Your task to perform on an android device: Open CNN.com Image 0: 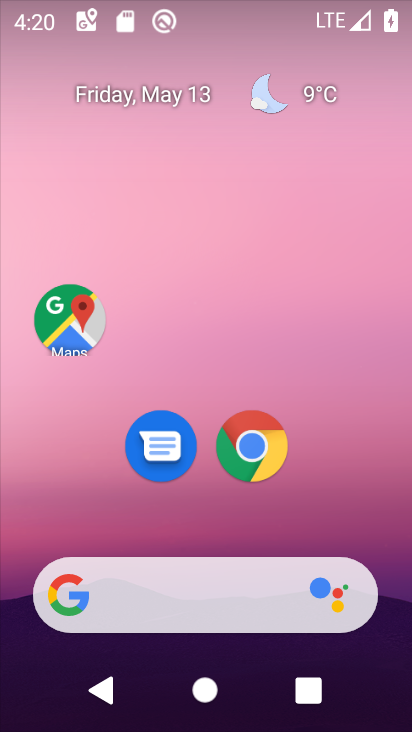
Step 0: click (254, 444)
Your task to perform on an android device: Open CNN.com Image 1: 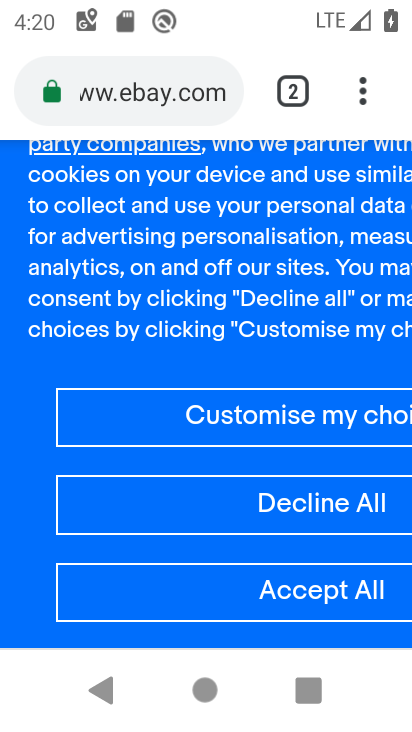
Step 1: click (158, 98)
Your task to perform on an android device: Open CNN.com Image 2: 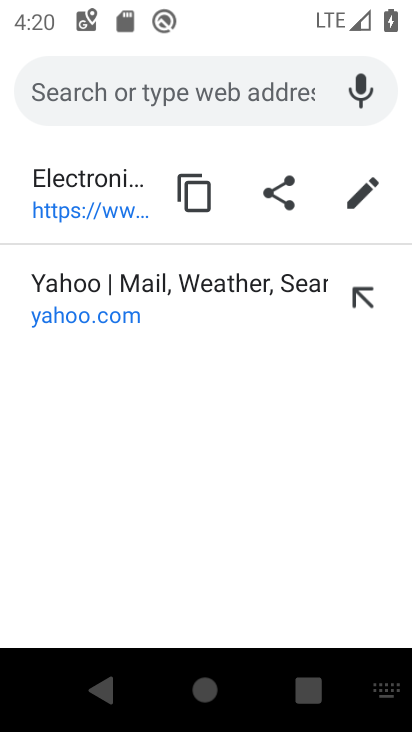
Step 2: type "CNN.com"
Your task to perform on an android device: Open CNN.com Image 3: 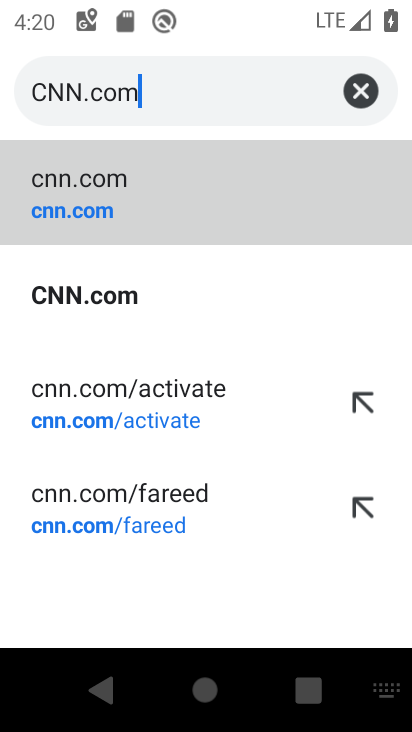
Step 3: click (142, 172)
Your task to perform on an android device: Open CNN.com Image 4: 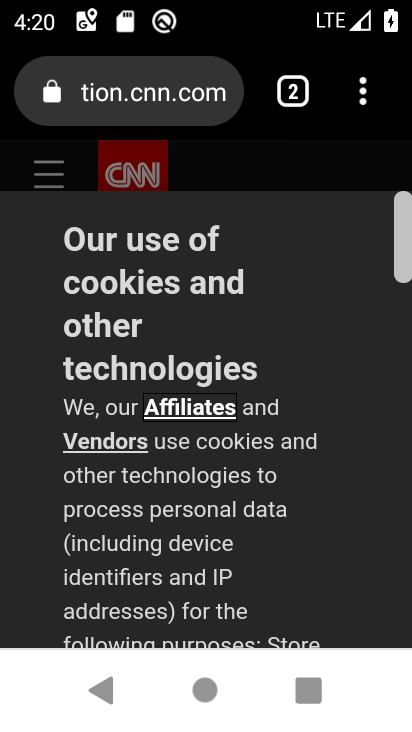
Step 4: task complete